Your task to perform on an android device: Open Chrome and go to the settings page Image 0: 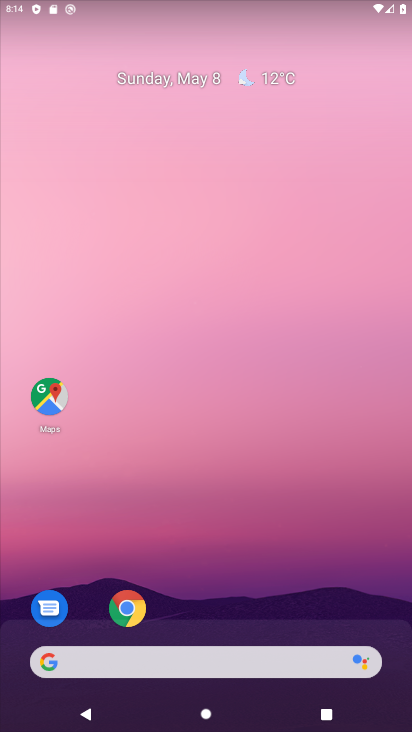
Step 0: drag from (262, 600) to (225, 31)
Your task to perform on an android device: Open Chrome and go to the settings page Image 1: 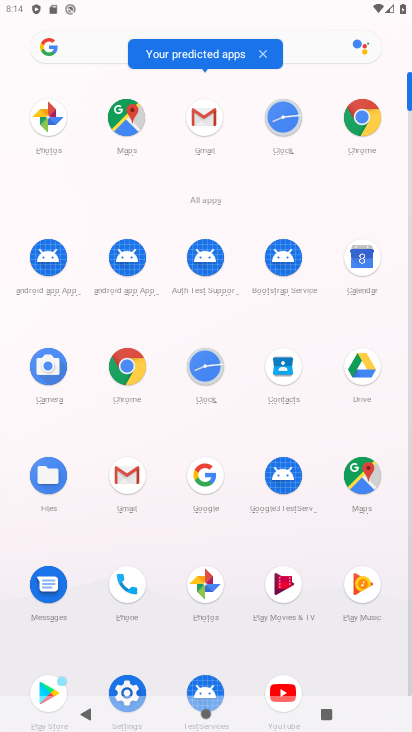
Step 1: click (126, 362)
Your task to perform on an android device: Open Chrome and go to the settings page Image 2: 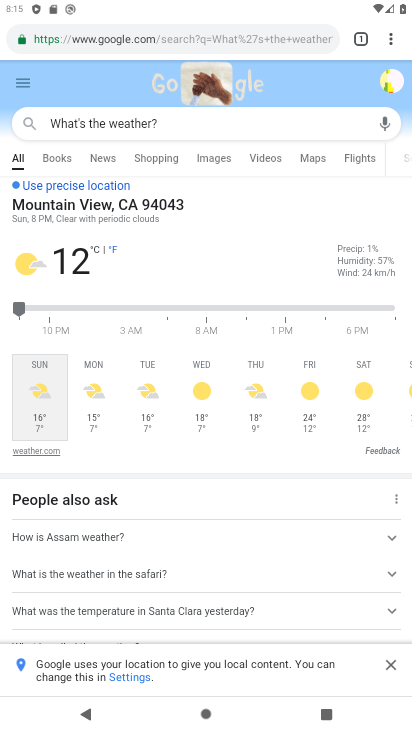
Step 2: task complete